Your task to perform on an android device: find snoozed emails in the gmail app Image 0: 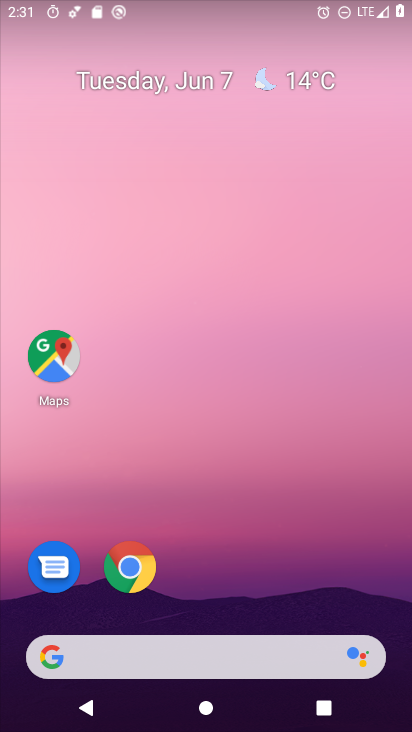
Step 0: drag from (326, 615) to (347, 26)
Your task to perform on an android device: find snoozed emails in the gmail app Image 1: 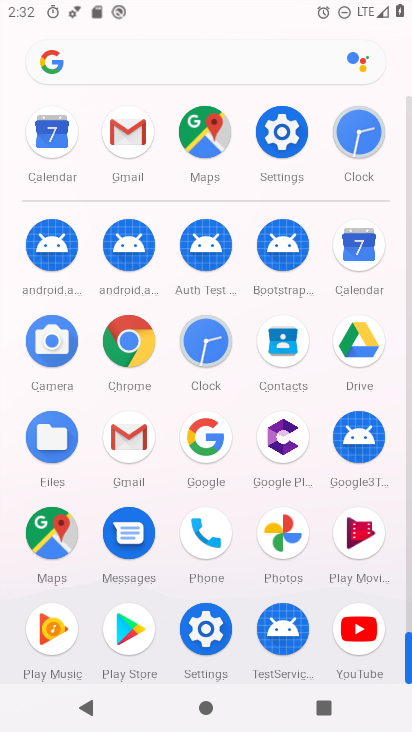
Step 1: click (108, 155)
Your task to perform on an android device: find snoozed emails in the gmail app Image 2: 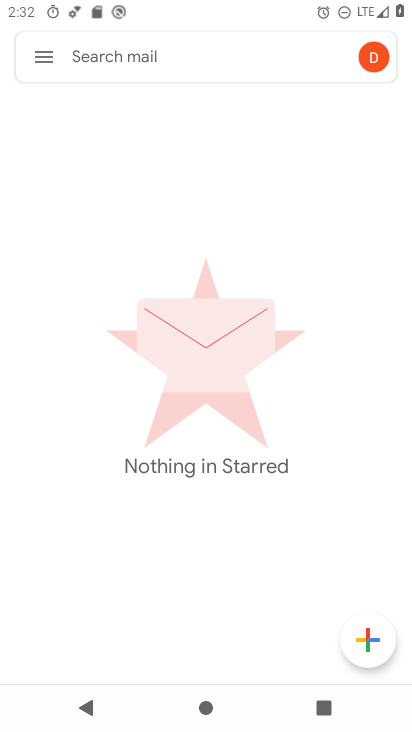
Step 2: click (54, 54)
Your task to perform on an android device: find snoozed emails in the gmail app Image 3: 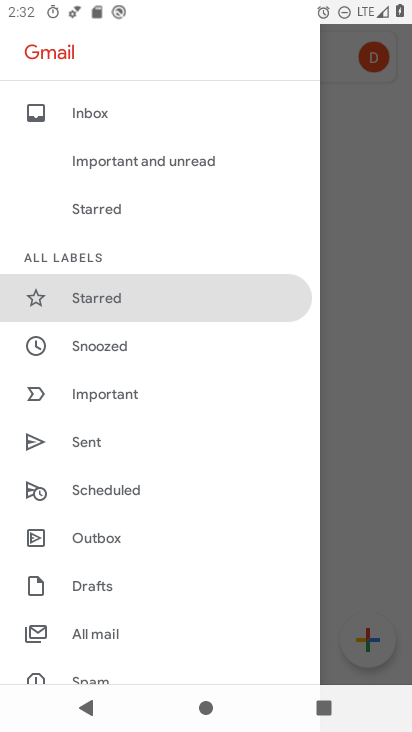
Step 3: click (107, 342)
Your task to perform on an android device: find snoozed emails in the gmail app Image 4: 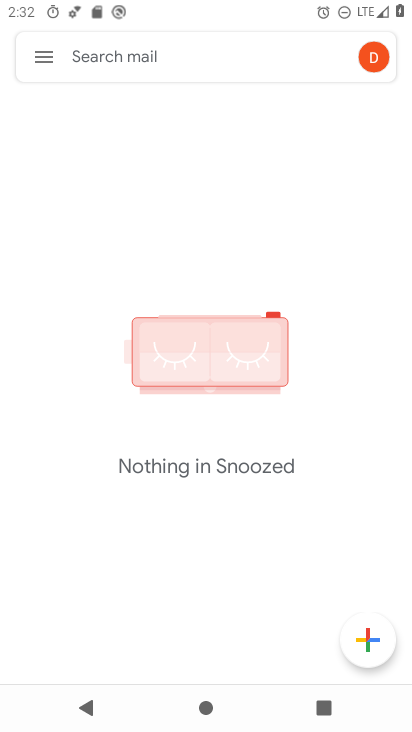
Step 4: task complete